Your task to perform on an android device: Is it going to rain this weekend? Image 0: 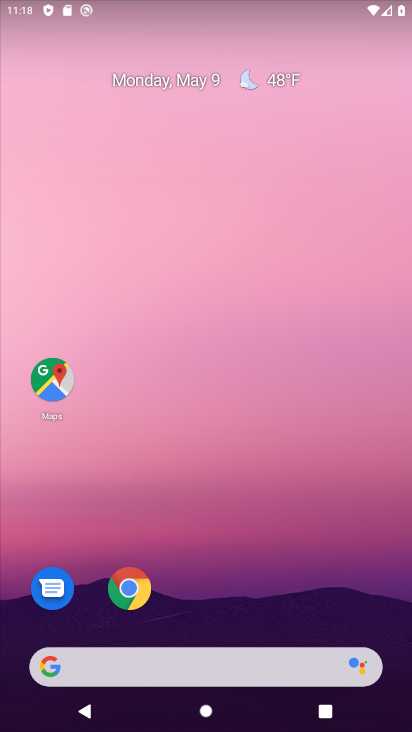
Step 0: click (254, 177)
Your task to perform on an android device: Is it going to rain this weekend? Image 1: 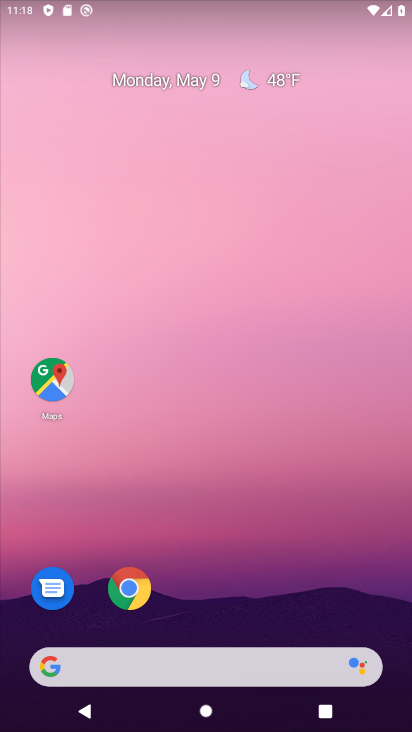
Step 1: click (215, 512)
Your task to perform on an android device: Is it going to rain this weekend? Image 2: 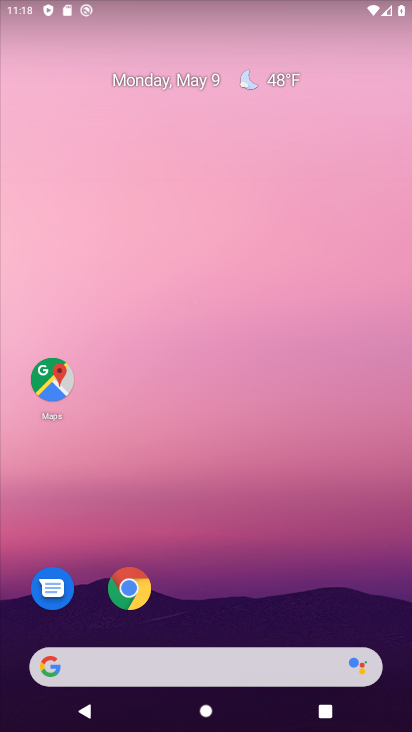
Step 2: drag from (194, 590) to (210, 204)
Your task to perform on an android device: Is it going to rain this weekend? Image 3: 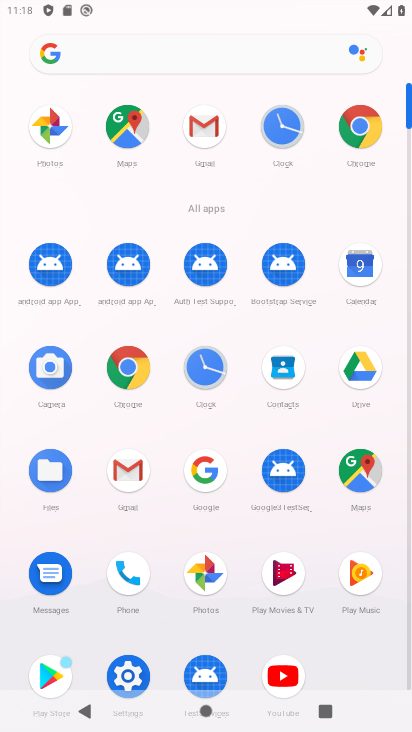
Step 3: click (197, 562)
Your task to perform on an android device: Is it going to rain this weekend? Image 4: 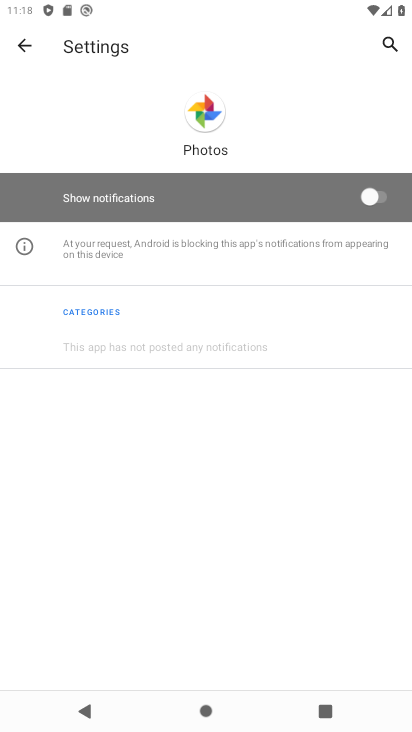
Step 4: press home button
Your task to perform on an android device: Is it going to rain this weekend? Image 5: 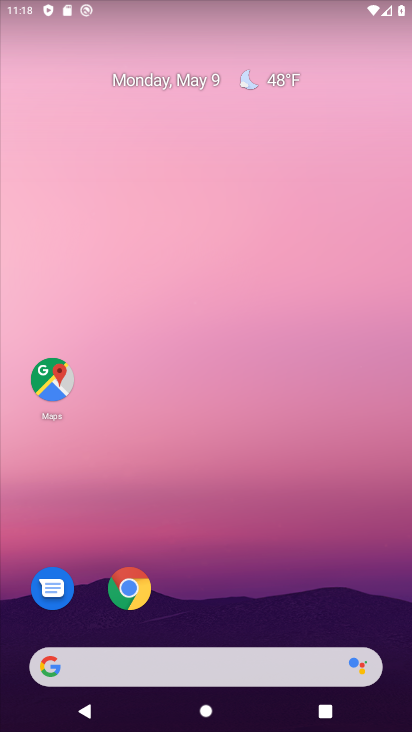
Step 5: drag from (221, 596) to (240, 122)
Your task to perform on an android device: Is it going to rain this weekend? Image 6: 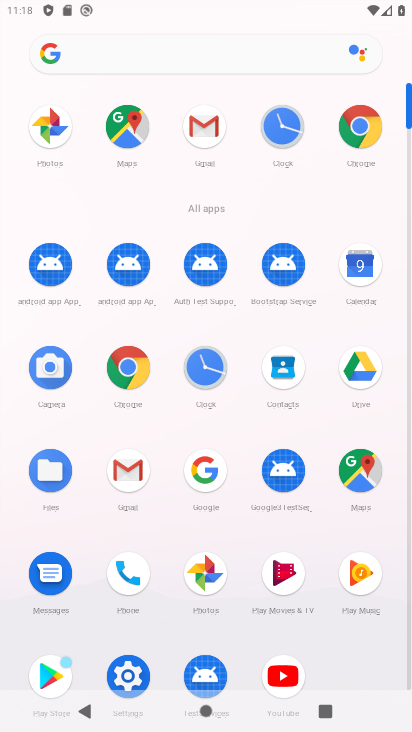
Step 6: click (375, 252)
Your task to perform on an android device: Is it going to rain this weekend? Image 7: 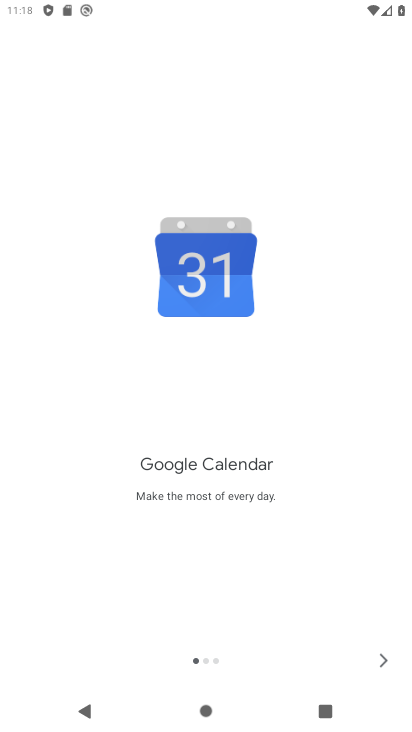
Step 7: click (364, 652)
Your task to perform on an android device: Is it going to rain this weekend? Image 8: 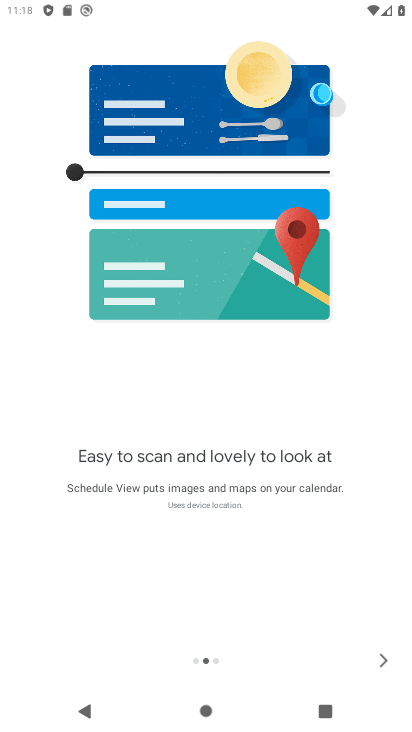
Step 8: click (364, 652)
Your task to perform on an android device: Is it going to rain this weekend? Image 9: 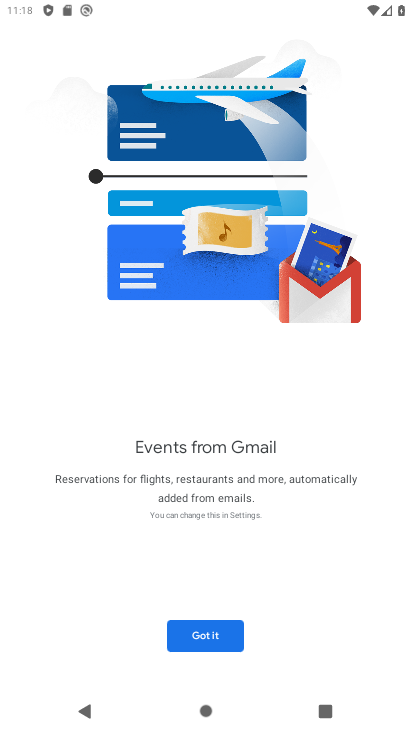
Step 9: click (364, 652)
Your task to perform on an android device: Is it going to rain this weekend? Image 10: 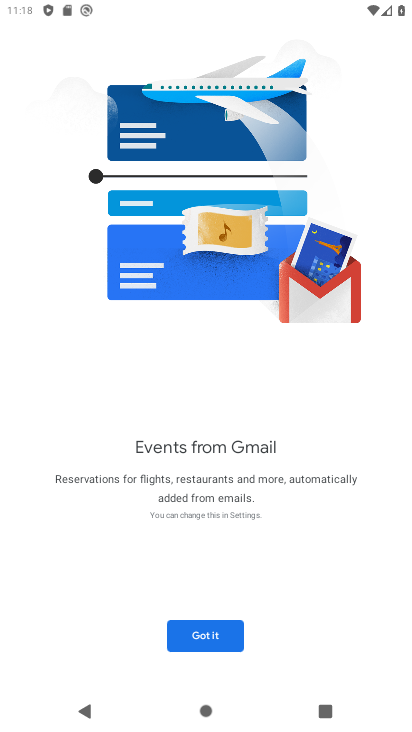
Step 10: click (218, 625)
Your task to perform on an android device: Is it going to rain this weekend? Image 11: 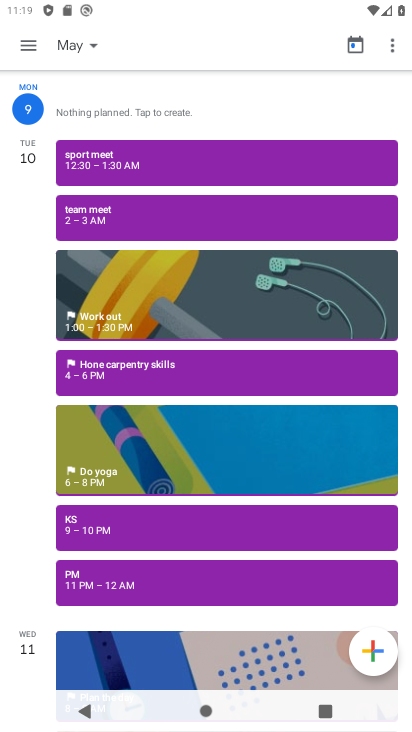
Step 11: click (19, 44)
Your task to perform on an android device: Is it going to rain this weekend? Image 12: 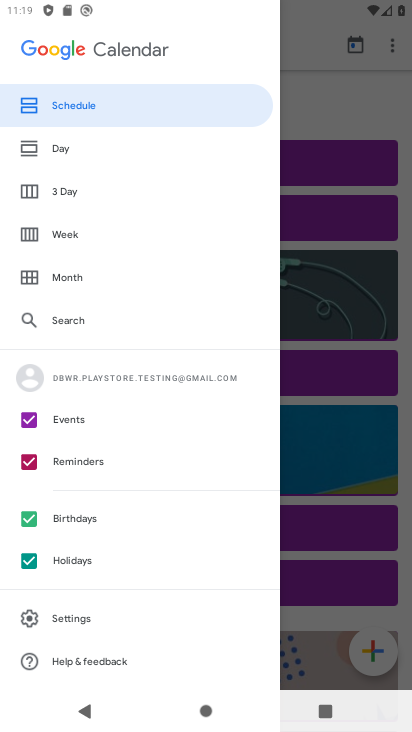
Step 12: press home button
Your task to perform on an android device: Is it going to rain this weekend? Image 13: 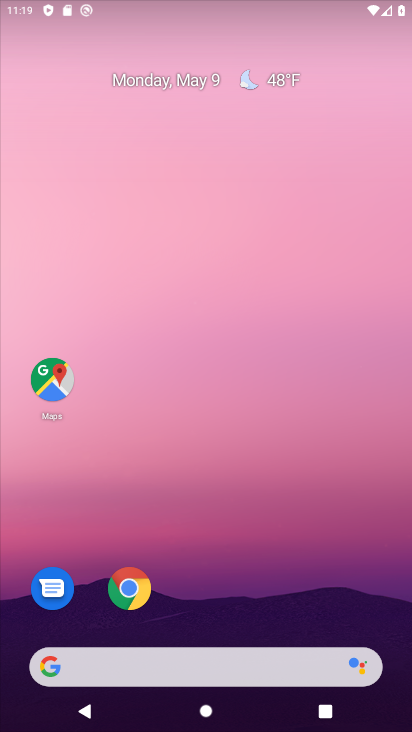
Step 13: drag from (223, 610) to (239, 85)
Your task to perform on an android device: Is it going to rain this weekend? Image 14: 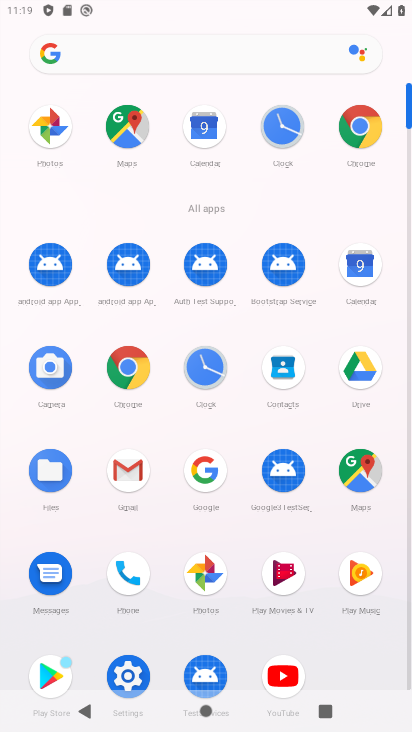
Step 14: click (117, 358)
Your task to perform on an android device: Is it going to rain this weekend? Image 15: 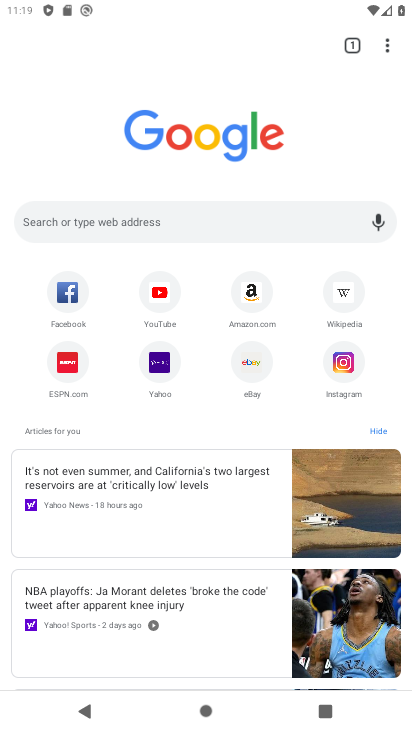
Step 15: click (200, 225)
Your task to perform on an android device: Is it going to rain this weekend? Image 16: 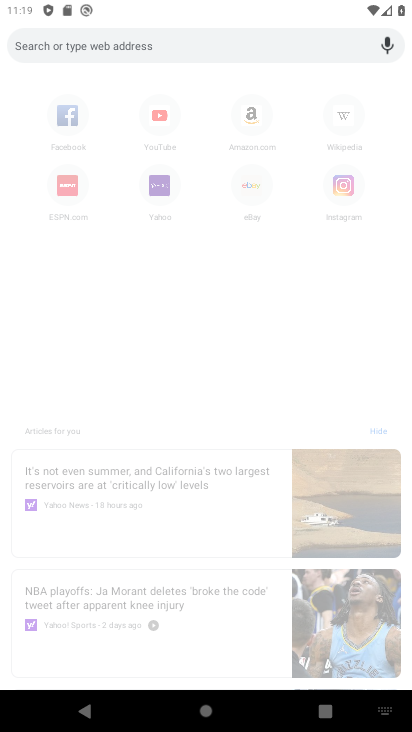
Step 16: click (148, 45)
Your task to perform on an android device: Is it going to rain this weekend? Image 17: 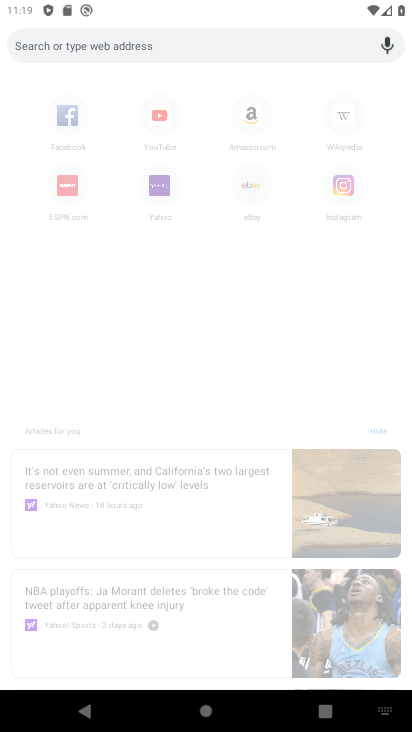
Step 17: type "s it going to rain this weekend?"
Your task to perform on an android device: Is it going to rain this weekend? Image 18: 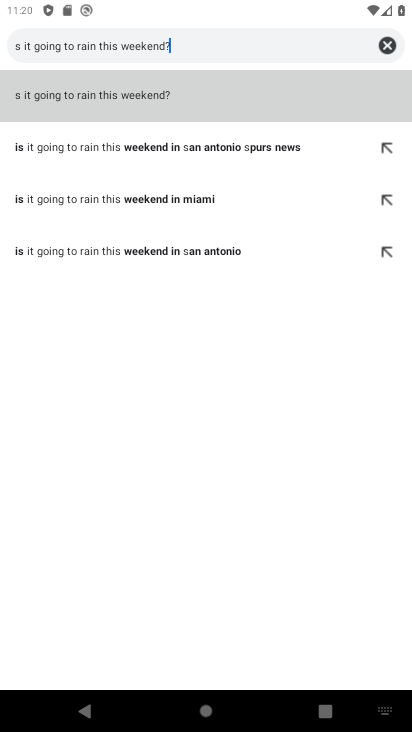
Step 18: click (225, 77)
Your task to perform on an android device: Is it going to rain this weekend? Image 19: 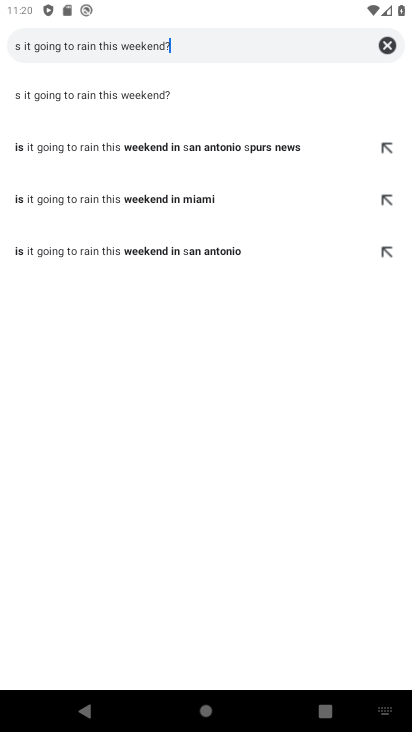
Step 19: click (139, 93)
Your task to perform on an android device: Is it going to rain this weekend? Image 20: 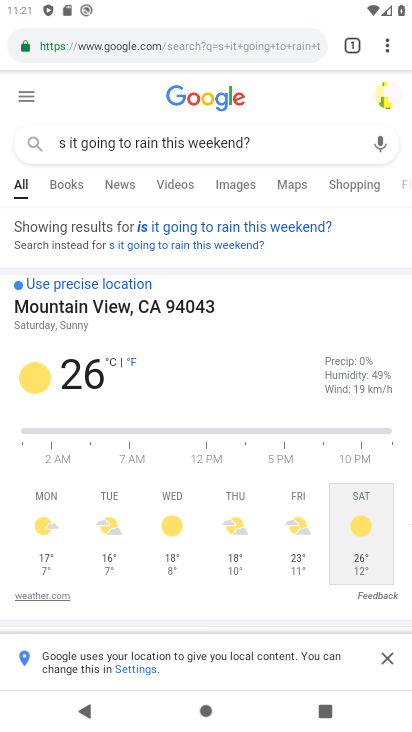
Step 20: task complete